Your task to perform on an android device: What's the weather today? Image 0: 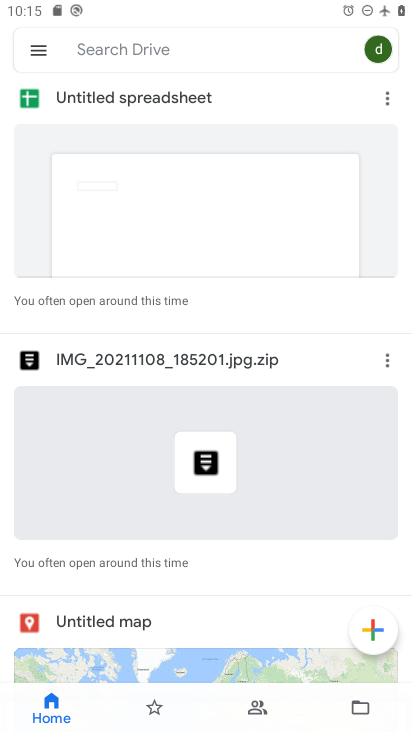
Step 0: press home button
Your task to perform on an android device: What's the weather today? Image 1: 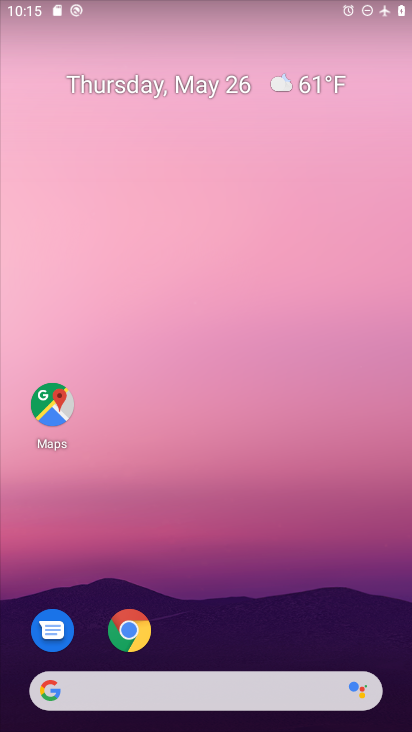
Step 1: click (201, 698)
Your task to perform on an android device: What's the weather today? Image 2: 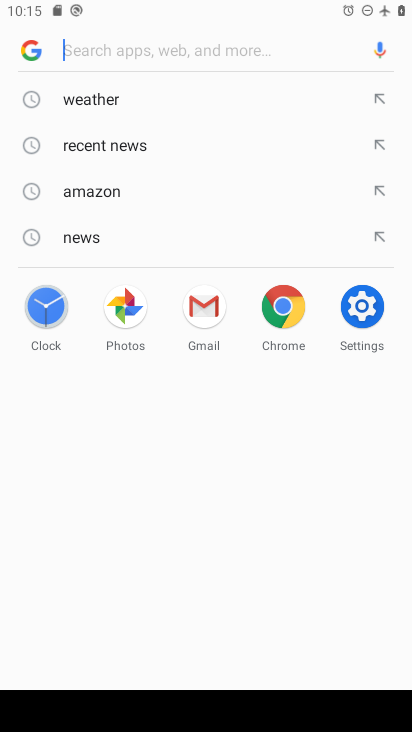
Step 2: click (107, 103)
Your task to perform on an android device: What's the weather today? Image 3: 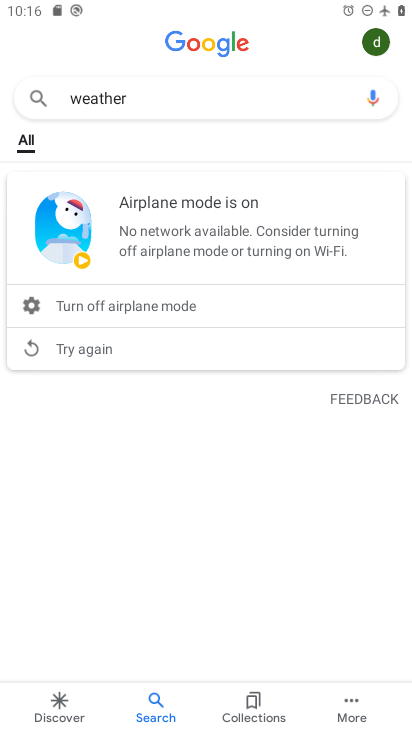
Step 3: task complete